Your task to perform on an android device: create a new album in the google photos Image 0: 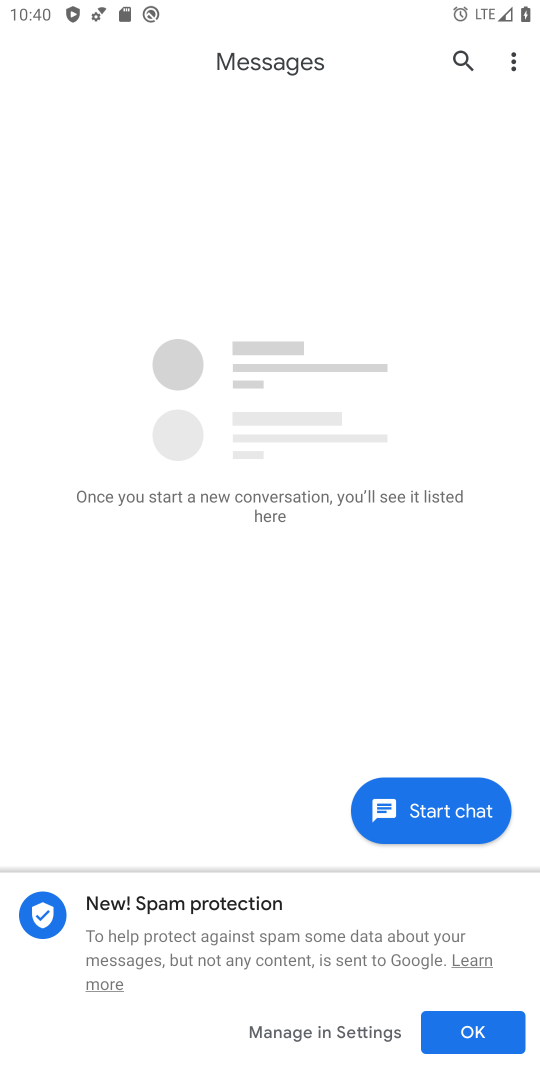
Step 0: press home button
Your task to perform on an android device: create a new album in the google photos Image 1: 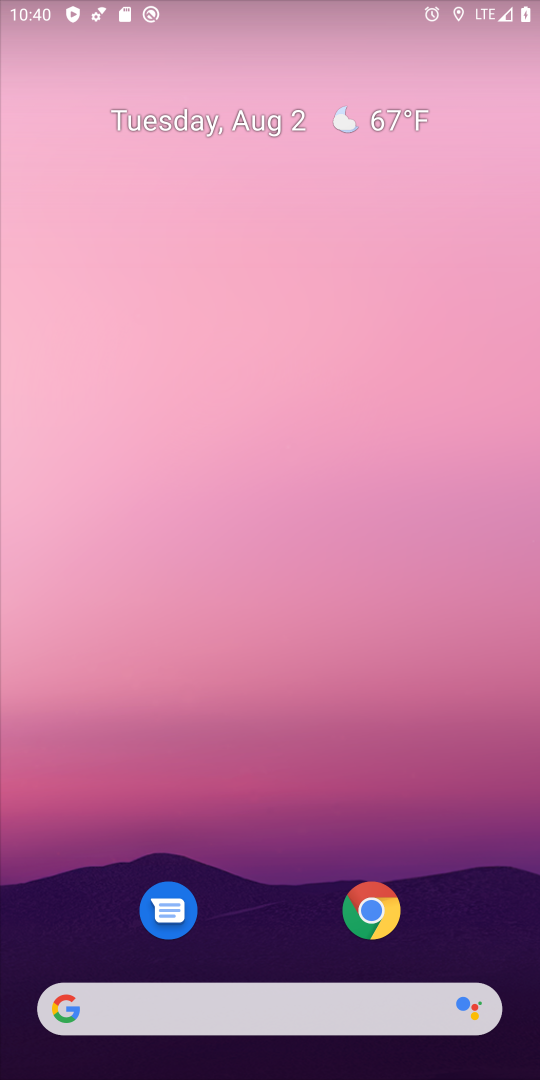
Step 1: drag from (213, 946) to (256, 337)
Your task to perform on an android device: create a new album in the google photos Image 2: 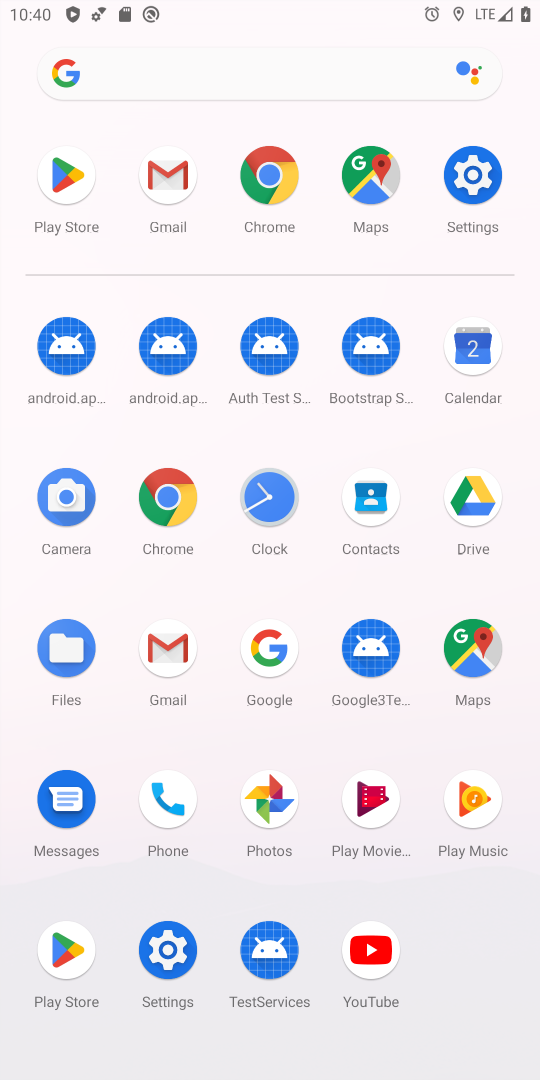
Step 2: click (281, 781)
Your task to perform on an android device: create a new album in the google photos Image 3: 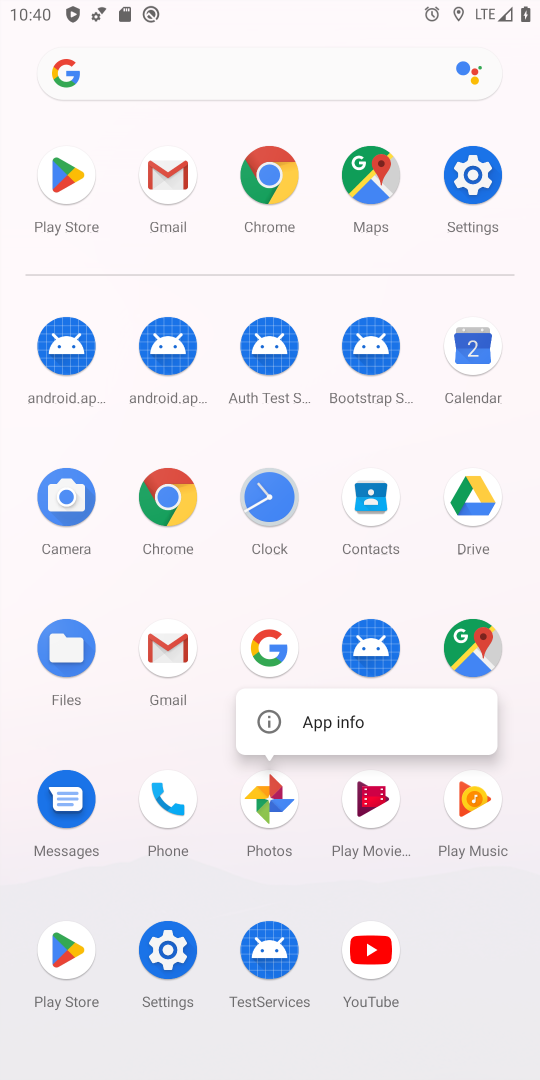
Step 3: click (281, 804)
Your task to perform on an android device: create a new album in the google photos Image 4: 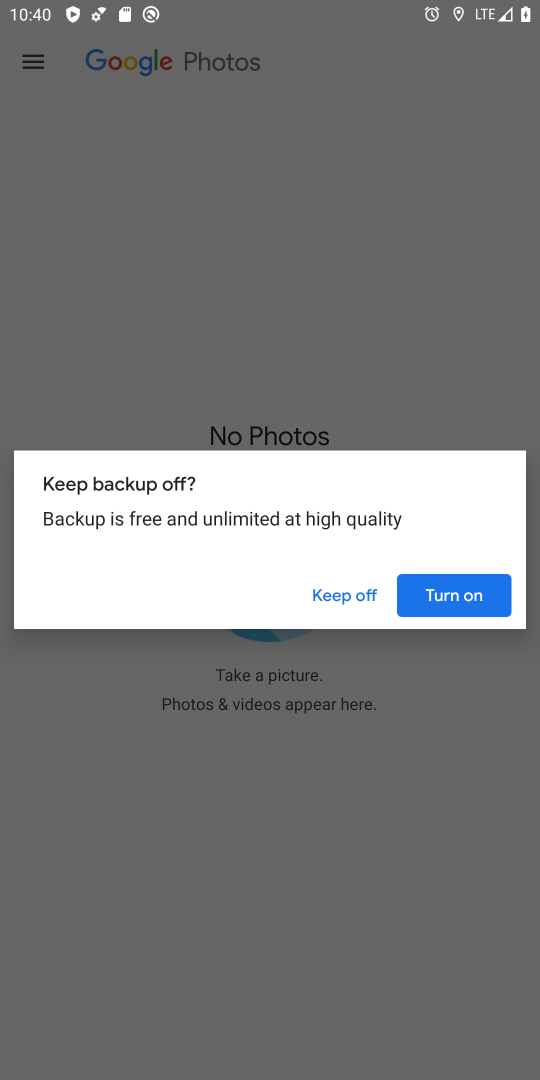
Step 4: click (281, 804)
Your task to perform on an android device: create a new album in the google photos Image 5: 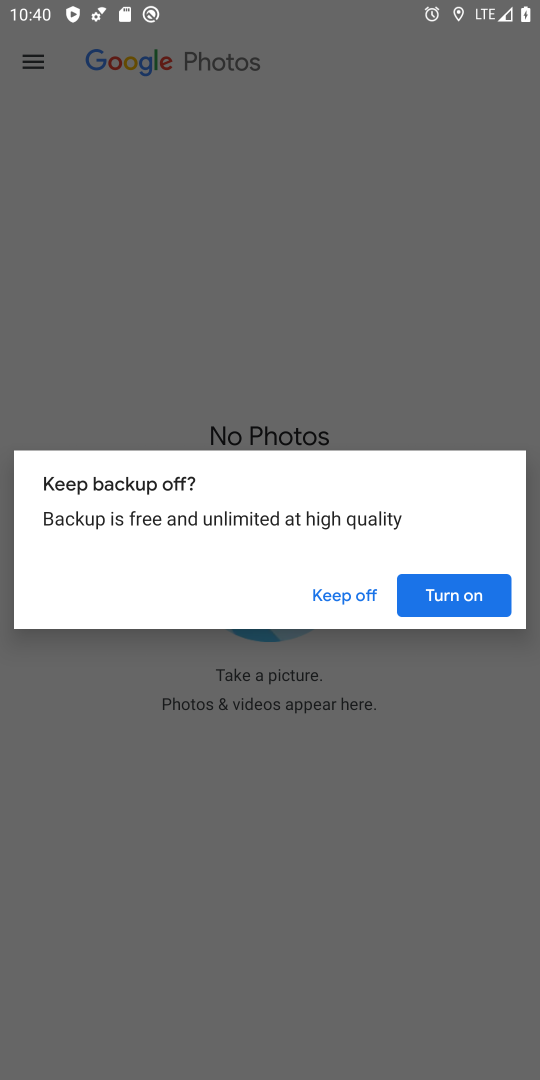
Step 5: click (447, 603)
Your task to perform on an android device: create a new album in the google photos Image 6: 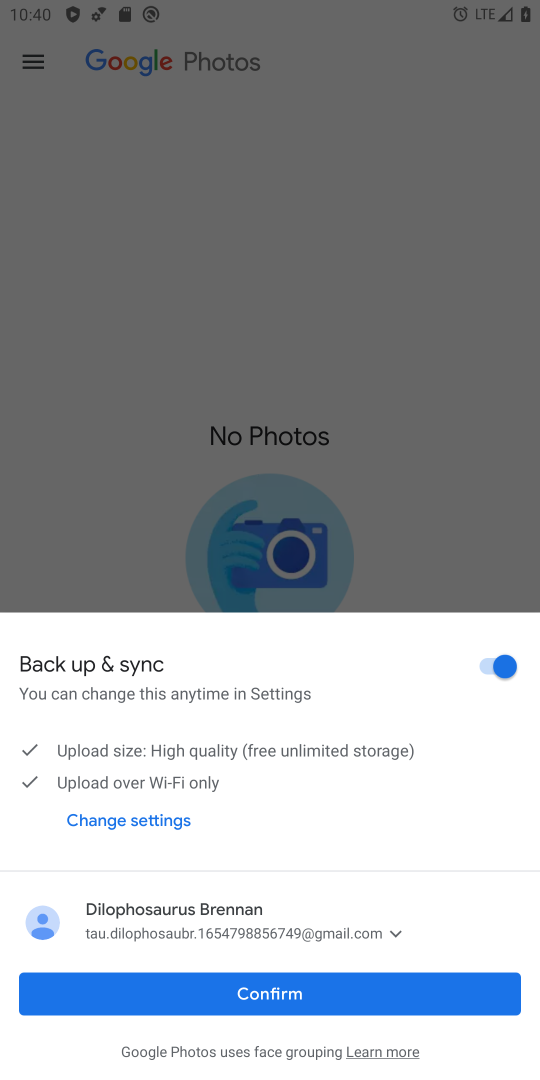
Step 6: click (202, 1013)
Your task to perform on an android device: create a new album in the google photos Image 7: 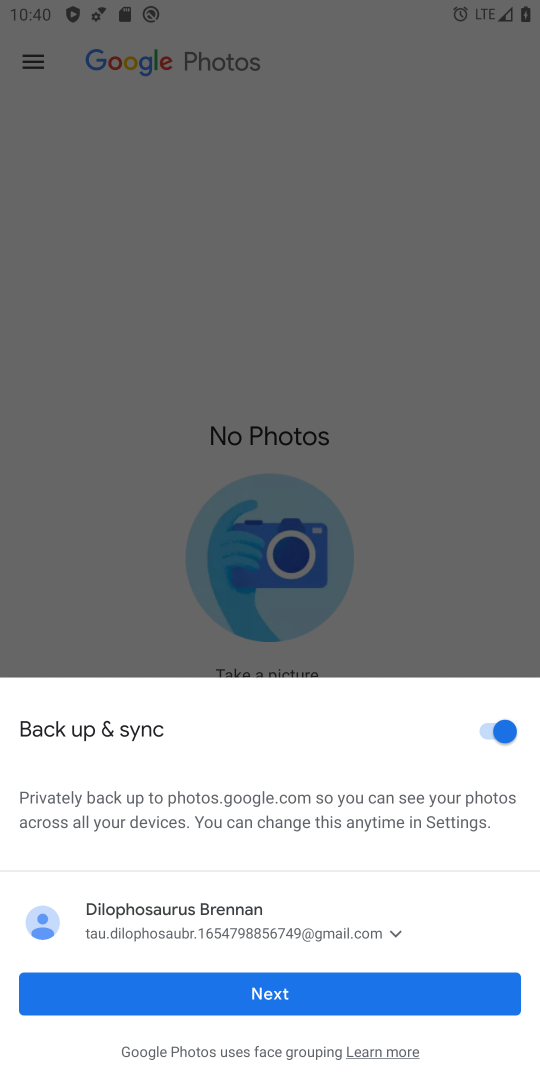
Step 7: click (399, 462)
Your task to perform on an android device: create a new album in the google photos Image 8: 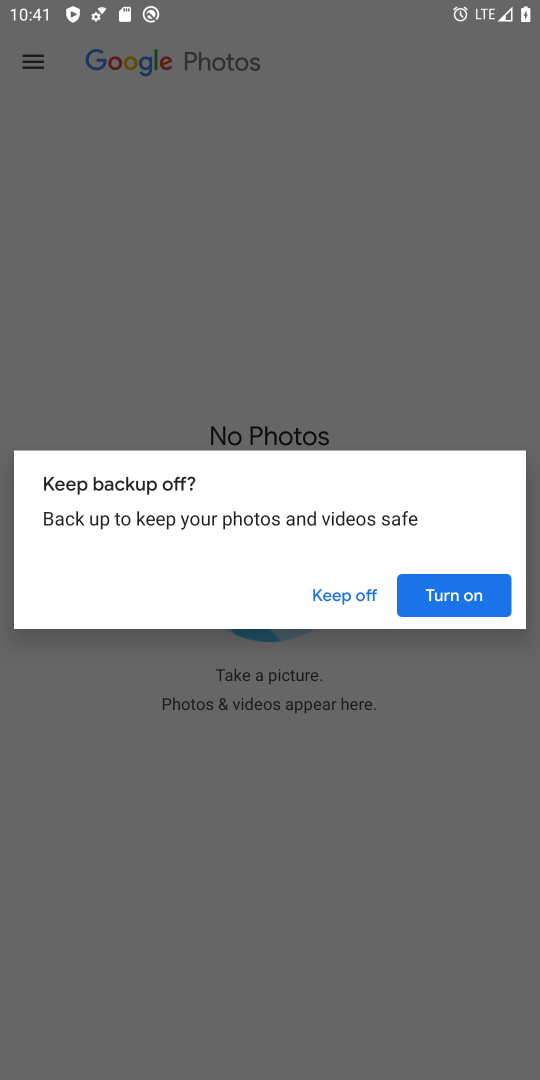
Step 8: task complete